Your task to perform on an android device: Open network settings Image 0: 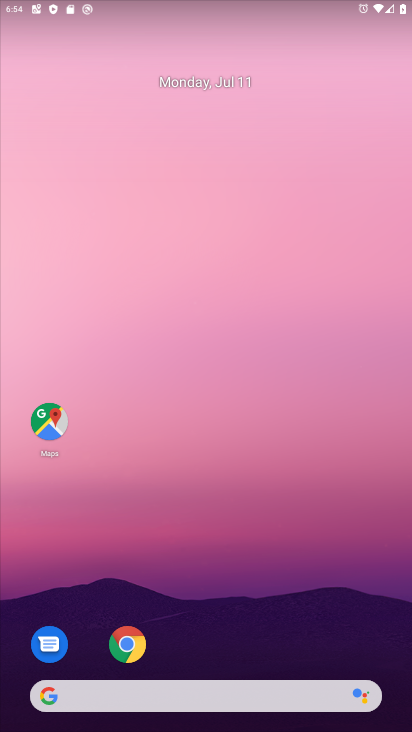
Step 0: drag from (288, 677) to (358, 107)
Your task to perform on an android device: Open network settings Image 1: 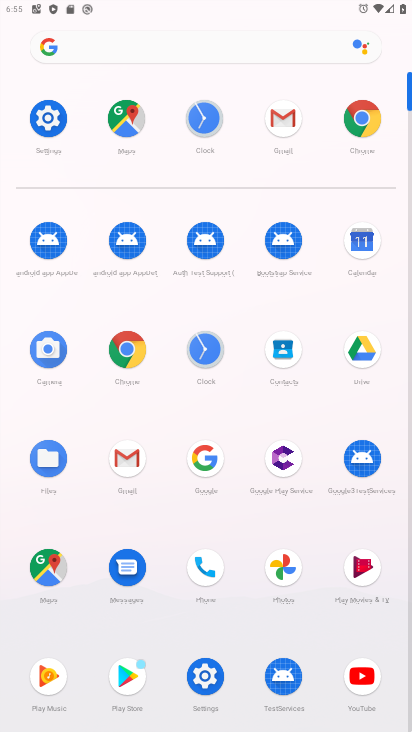
Step 1: click (50, 115)
Your task to perform on an android device: Open network settings Image 2: 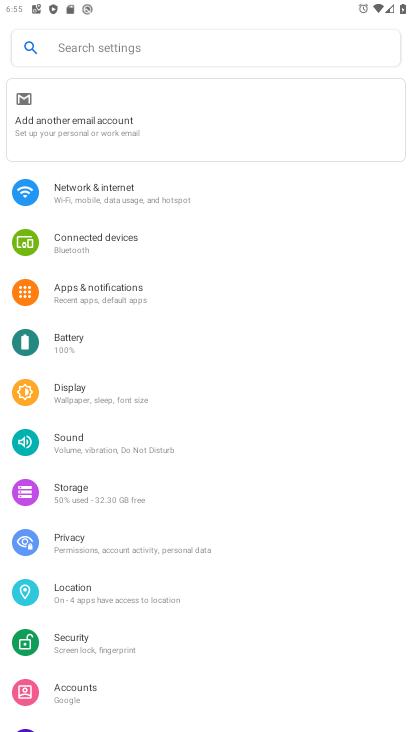
Step 2: click (54, 149)
Your task to perform on an android device: Open network settings Image 3: 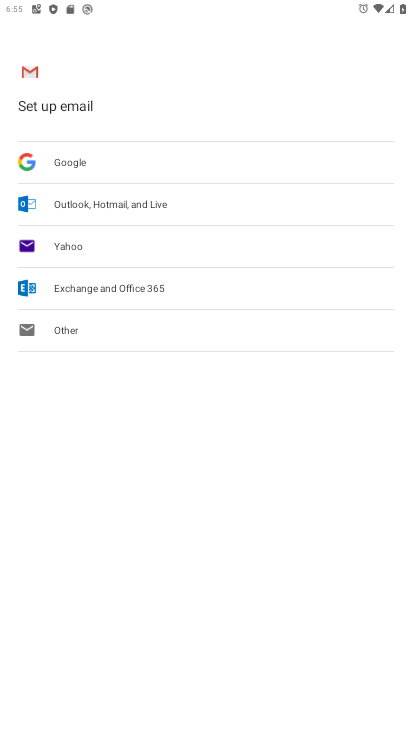
Step 3: press back button
Your task to perform on an android device: Open network settings Image 4: 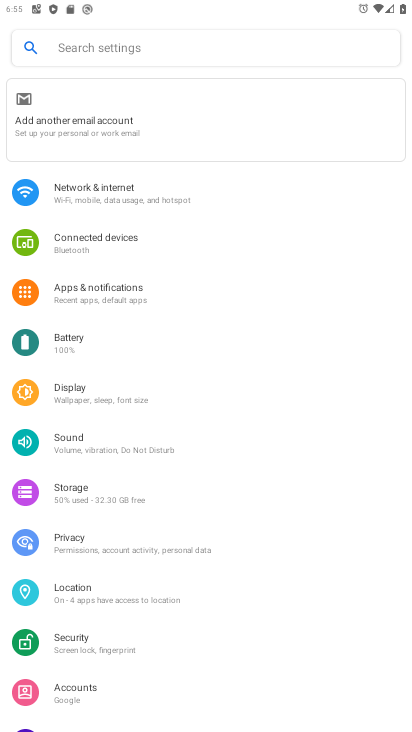
Step 4: click (121, 194)
Your task to perform on an android device: Open network settings Image 5: 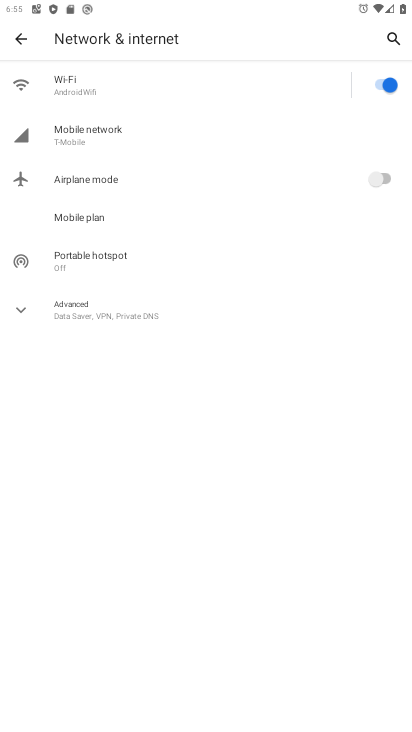
Step 5: click (198, 143)
Your task to perform on an android device: Open network settings Image 6: 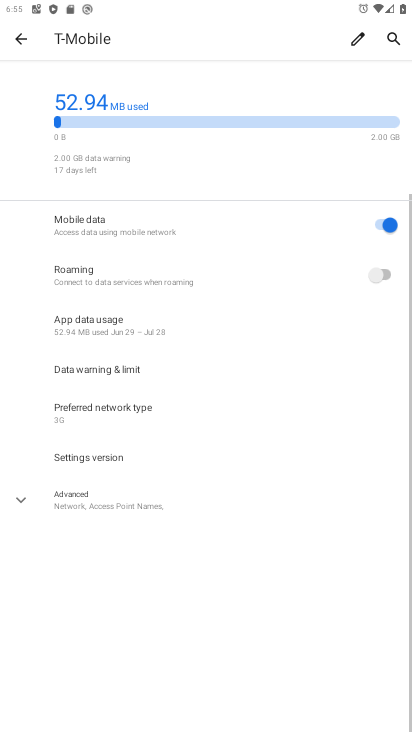
Step 6: task complete